Your task to perform on an android device: allow notifications from all sites in the chrome app Image 0: 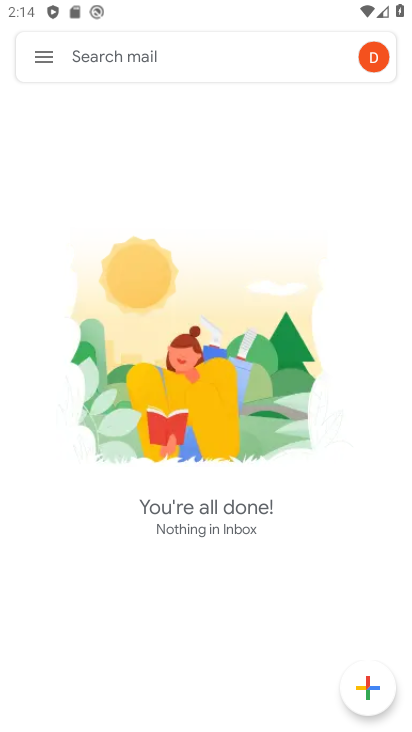
Step 0: press home button
Your task to perform on an android device: allow notifications from all sites in the chrome app Image 1: 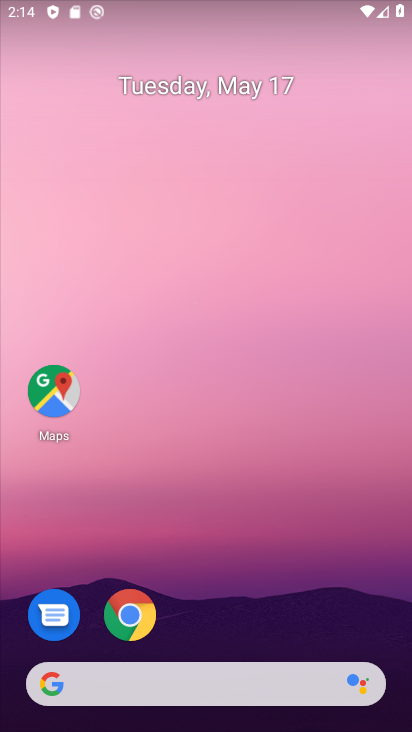
Step 1: click (126, 614)
Your task to perform on an android device: allow notifications from all sites in the chrome app Image 2: 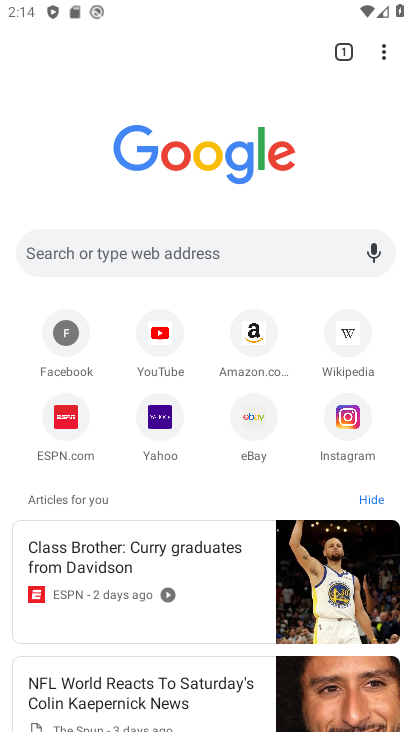
Step 2: click (383, 53)
Your task to perform on an android device: allow notifications from all sites in the chrome app Image 3: 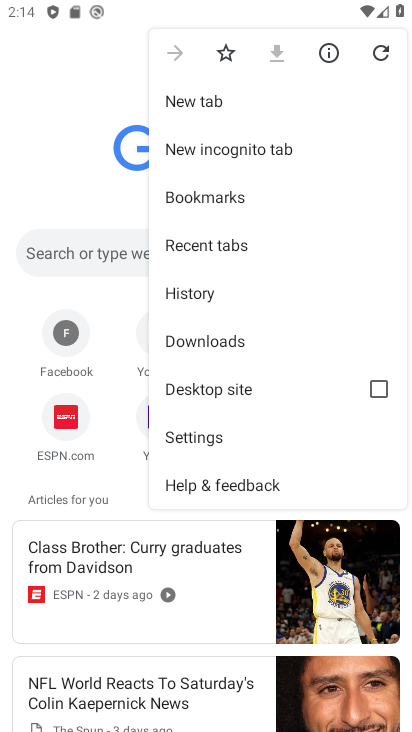
Step 3: click (192, 441)
Your task to perform on an android device: allow notifications from all sites in the chrome app Image 4: 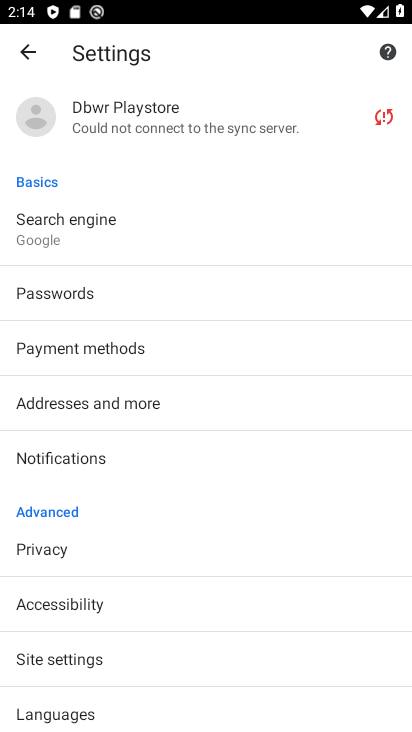
Step 4: drag from (112, 666) to (146, 393)
Your task to perform on an android device: allow notifications from all sites in the chrome app Image 5: 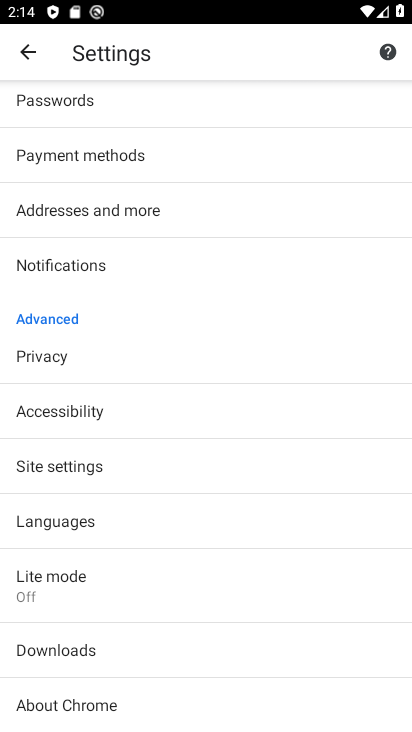
Step 5: click (76, 460)
Your task to perform on an android device: allow notifications from all sites in the chrome app Image 6: 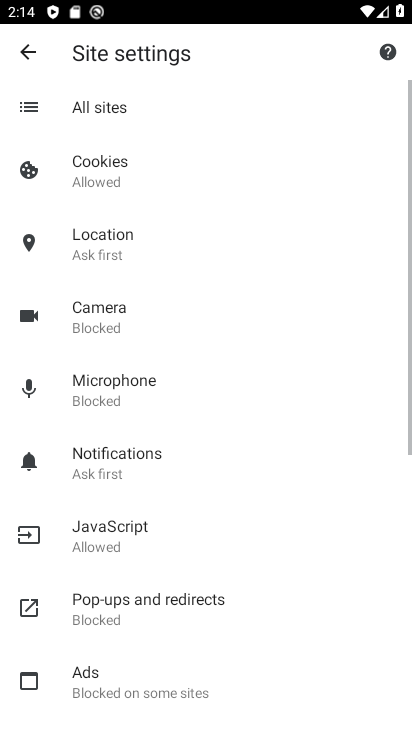
Step 6: click (124, 443)
Your task to perform on an android device: allow notifications from all sites in the chrome app Image 7: 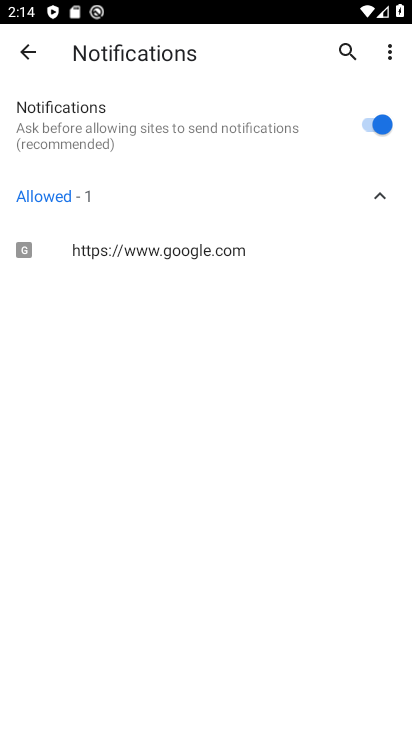
Step 7: task complete